Your task to perform on an android device: turn off location Image 0: 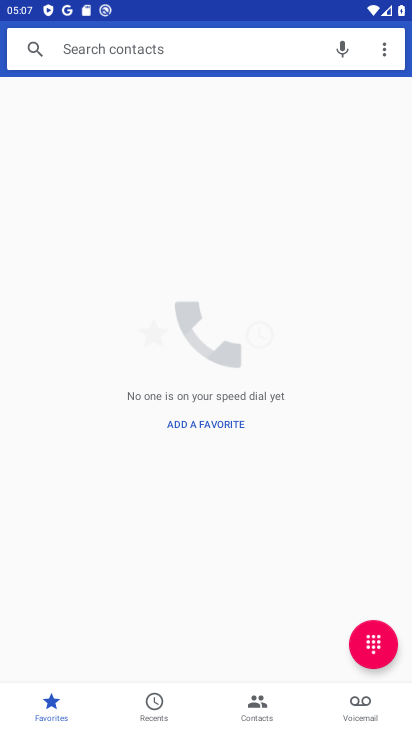
Step 0: press home button
Your task to perform on an android device: turn off location Image 1: 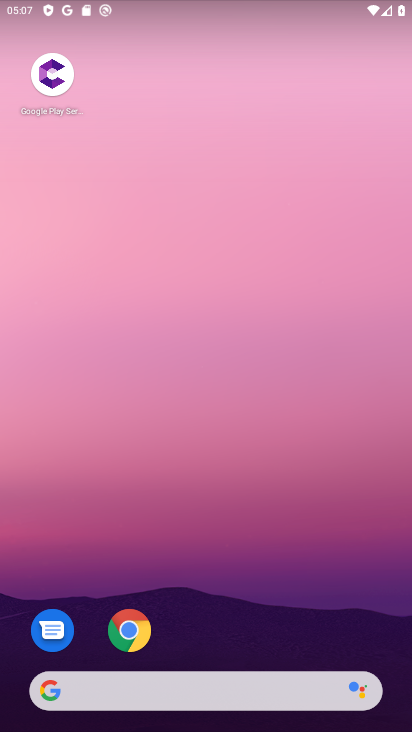
Step 1: drag from (177, 647) to (248, 202)
Your task to perform on an android device: turn off location Image 2: 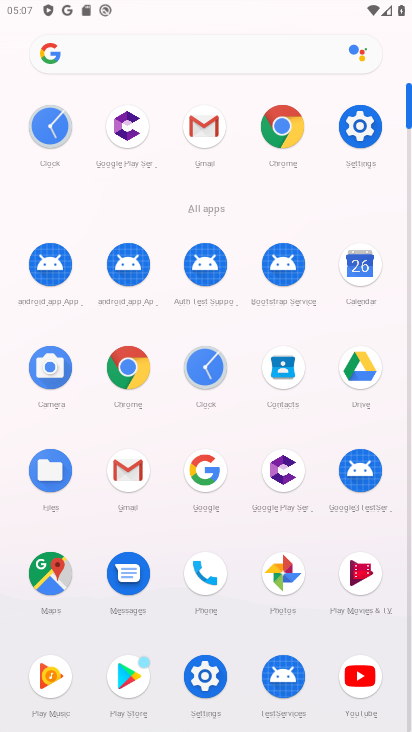
Step 2: drag from (154, 644) to (206, 429)
Your task to perform on an android device: turn off location Image 3: 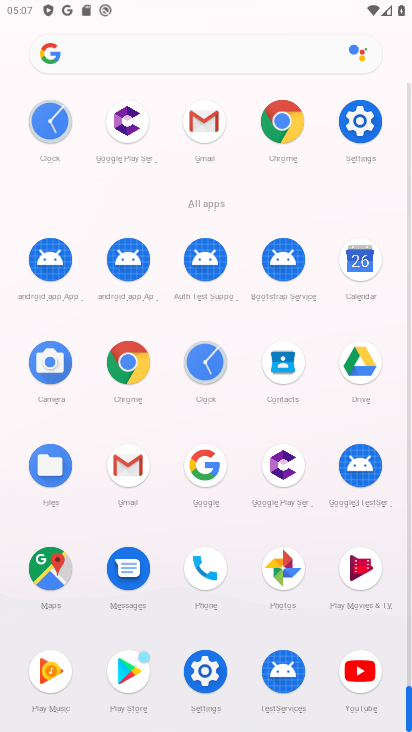
Step 3: click (194, 681)
Your task to perform on an android device: turn off location Image 4: 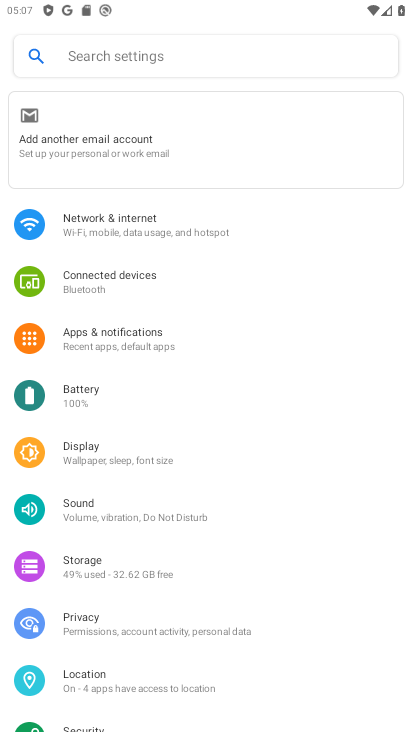
Step 4: drag from (90, 671) to (135, 480)
Your task to perform on an android device: turn off location Image 5: 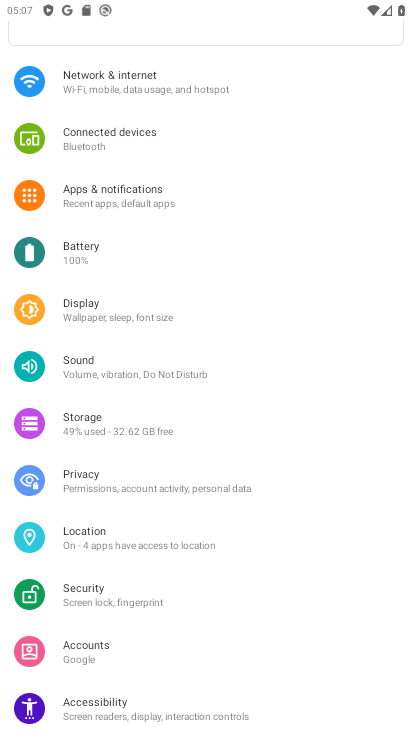
Step 5: click (120, 548)
Your task to perform on an android device: turn off location Image 6: 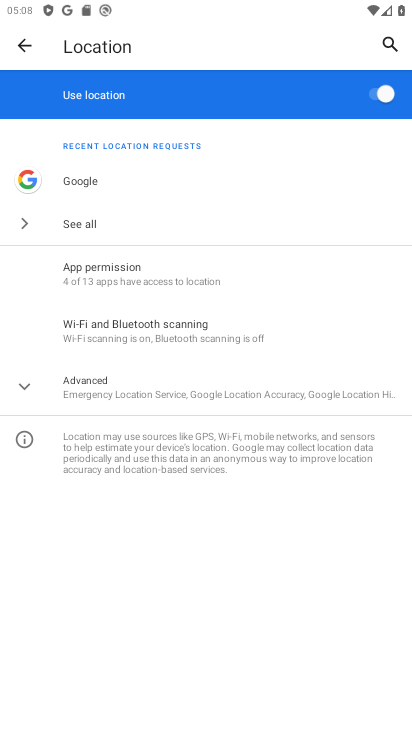
Step 6: click (376, 85)
Your task to perform on an android device: turn off location Image 7: 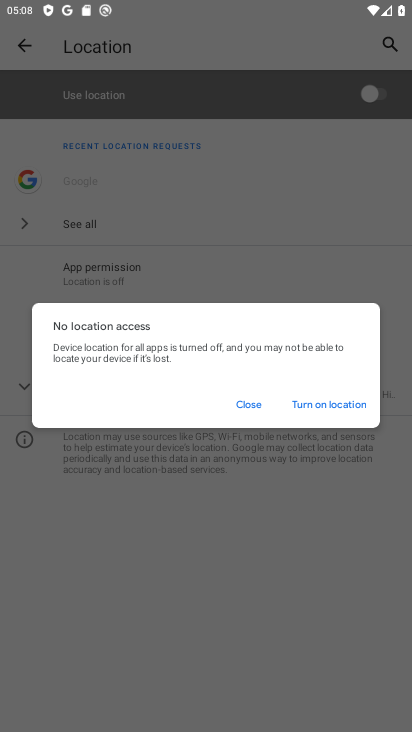
Step 7: click (241, 412)
Your task to perform on an android device: turn off location Image 8: 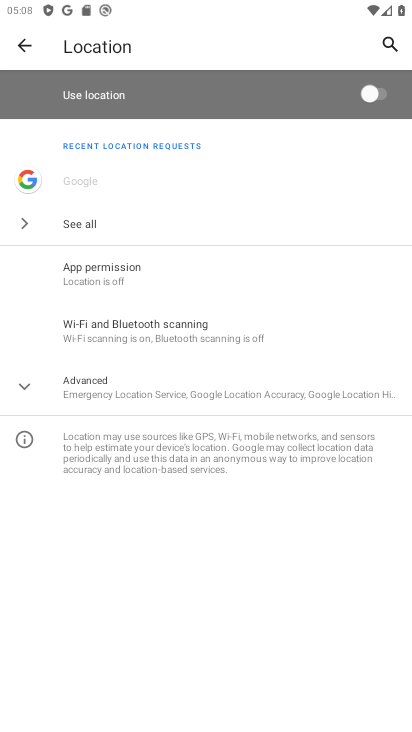
Step 8: task complete